Your task to perform on an android device: turn on priority inbox in the gmail app Image 0: 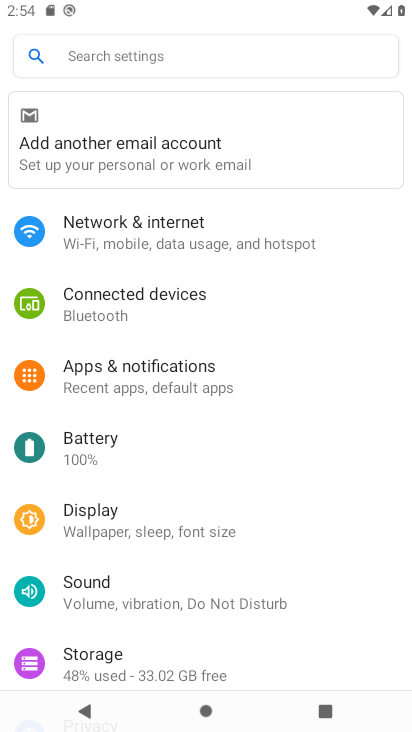
Step 0: press home button
Your task to perform on an android device: turn on priority inbox in the gmail app Image 1: 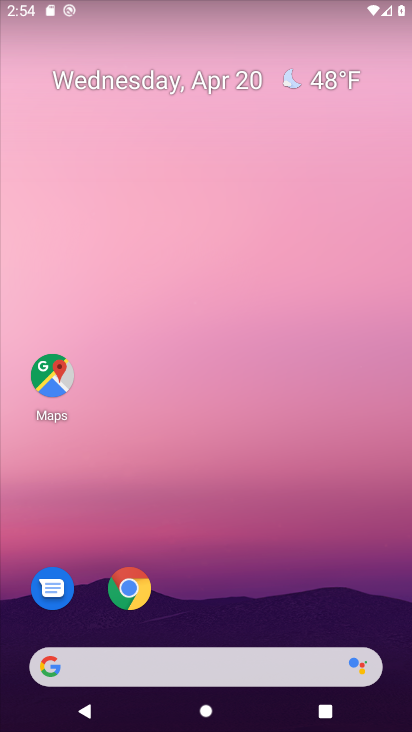
Step 1: drag from (345, 595) to (349, 87)
Your task to perform on an android device: turn on priority inbox in the gmail app Image 2: 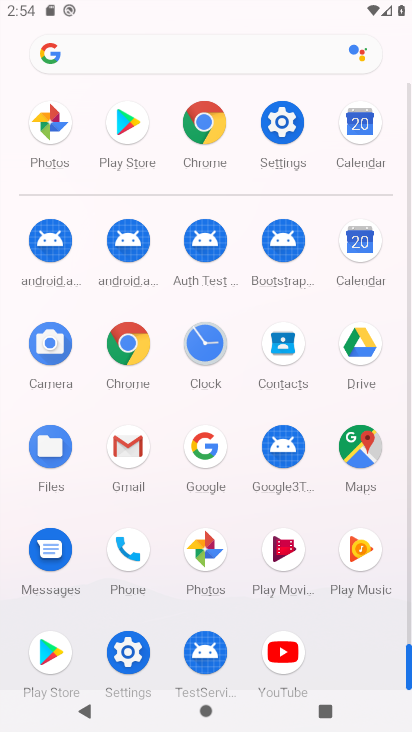
Step 2: click (130, 449)
Your task to perform on an android device: turn on priority inbox in the gmail app Image 3: 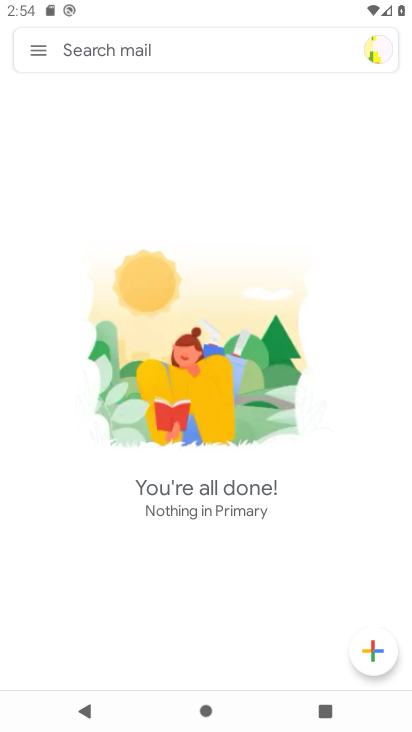
Step 3: click (41, 55)
Your task to perform on an android device: turn on priority inbox in the gmail app Image 4: 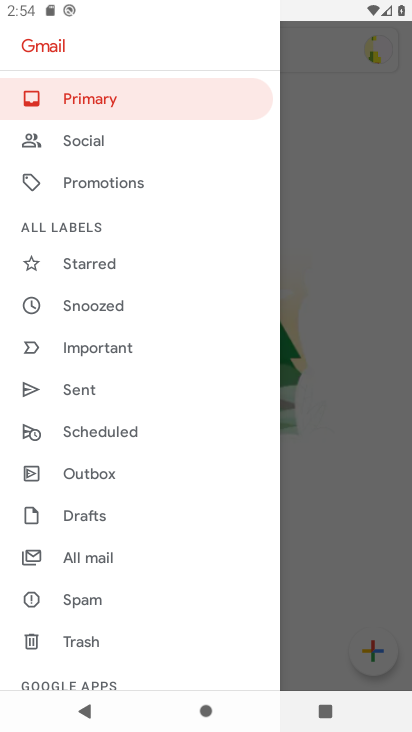
Step 4: drag from (213, 455) to (215, 358)
Your task to perform on an android device: turn on priority inbox in the gmail app Image 5: 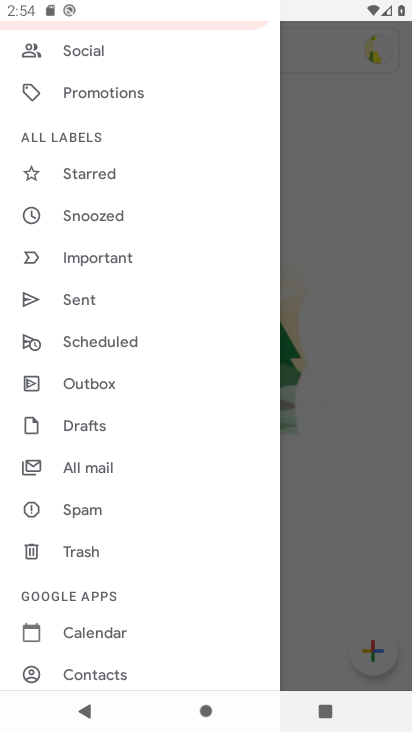
Step 5: drag from (220, 446) to (221, 390)
Your task to perform on an android device: turn on priority inbox in the gmail app Image 6: 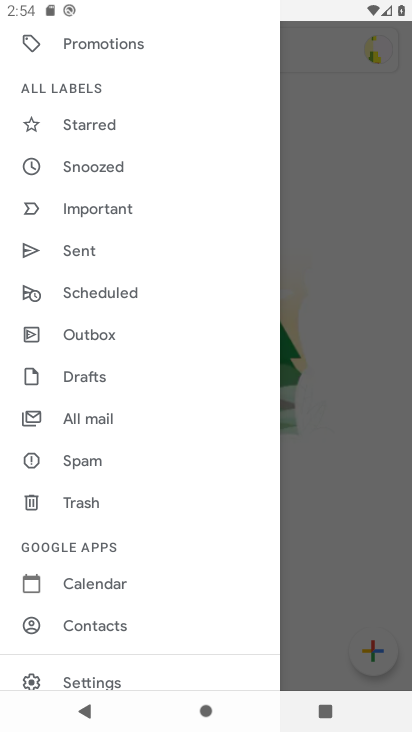
Step 6: drag from (202, 552) to (211, 384)
Your task to perform on an android device: turn on priority inbox in the gmail app Image 7: 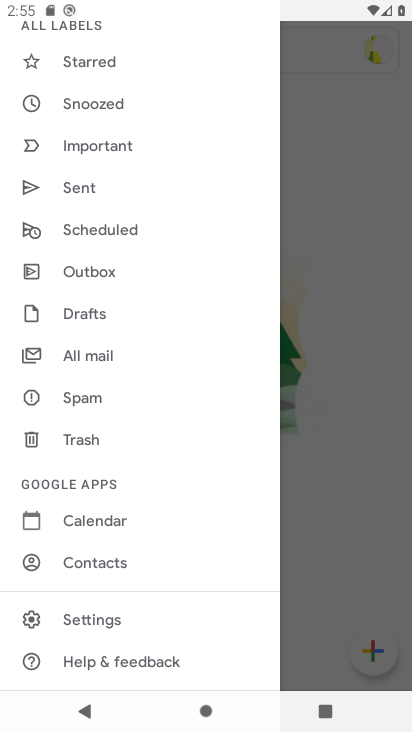
Step 7: click (122, 617)
Your task to perform on an android device: turn on priority inbox in the gmail app Image 8: 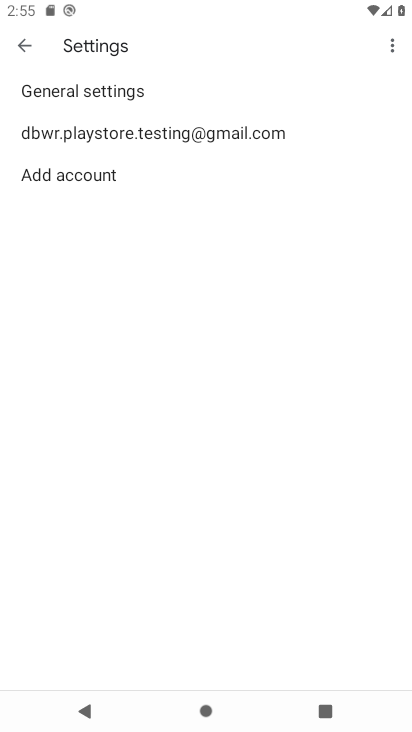
Step 8: click (248, 134)
Your task to perform on an android device: turn on priority inbox in the gmail app Image 9: 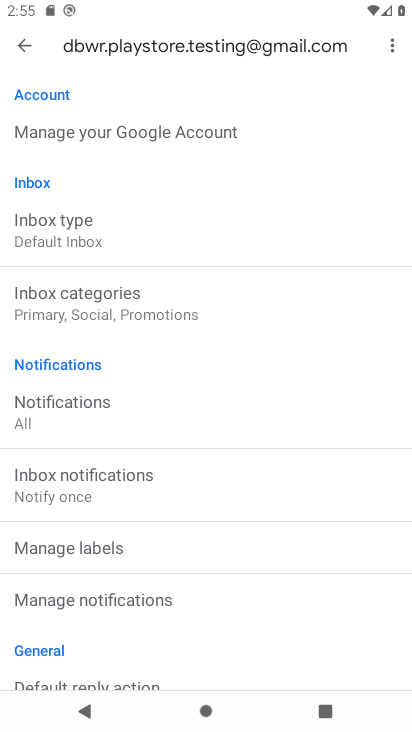
Step 9: drag from (267, 528) to (273, 397)
Your task to perform on an android device: turn on priority inbox in the gmail app Image 10: 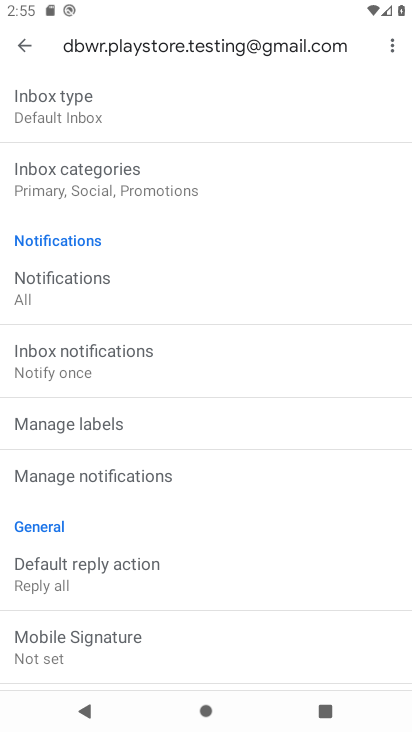
Step 10: drag from (291, 501) to (298, 402)
Your task to perform on an android device: turn on priority inbox in the gmail app Image 11: 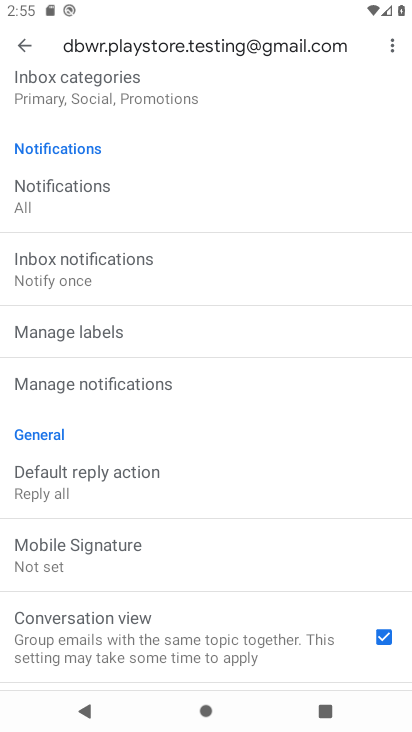
Step 11: drag from (302, 548) to (311, 359)
Your task to perform on an android device: turn on priority inbox in the gmail app Image 12: 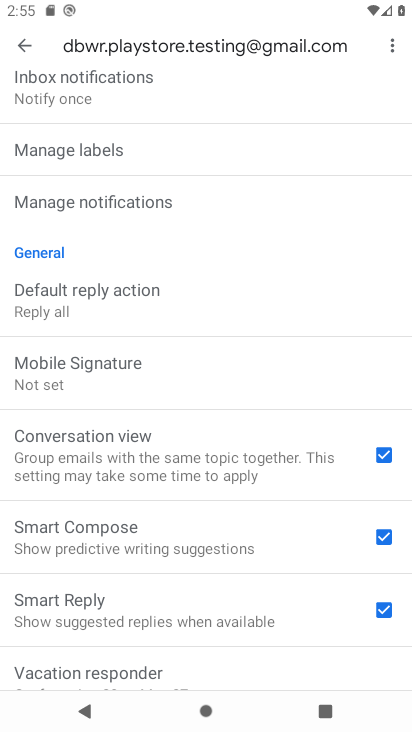
Step 12: drag from (309, 587) to (307, 391)
Your task to perform on an android device: turn on priority inbox in the gmail app Image 13: 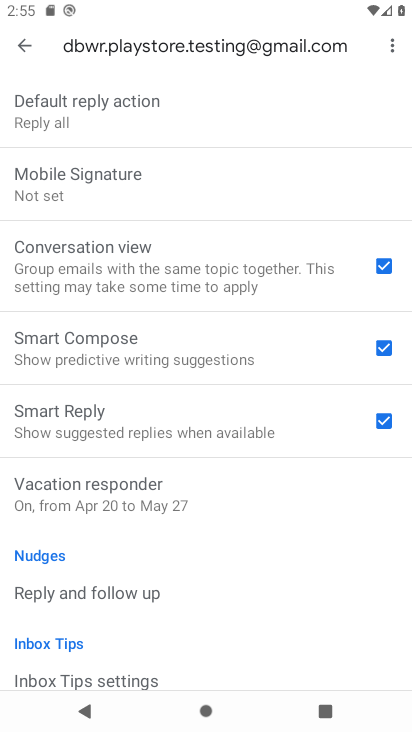
Step 13: drag from (311, 335) to (311, 495)
Your task to perform on an android device: turn on priority inbox in the gmail app Image 14: 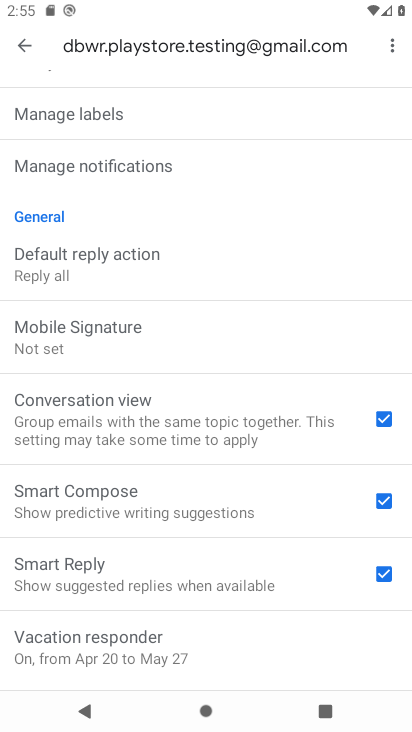
Step 14: drag from (302, 290) to (292, 467)
Your task to perform on an android device: turn on priority inbox in the gmail app Image 15: 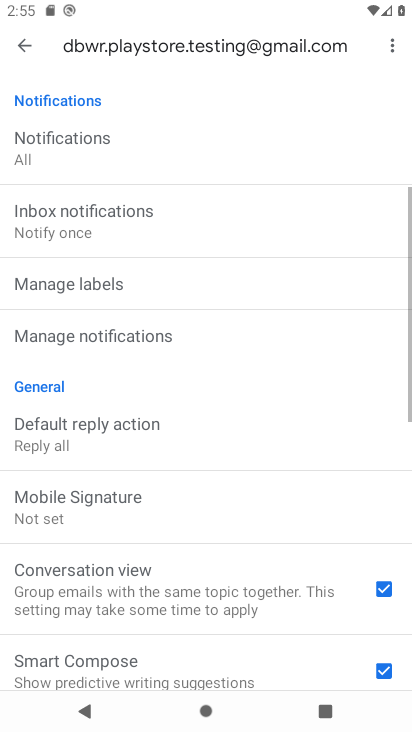
Step 15: drag from (280, 251) to (268, 408)
Your task to perform on an android device: turn on priority inbox in the gmail app Image 16: 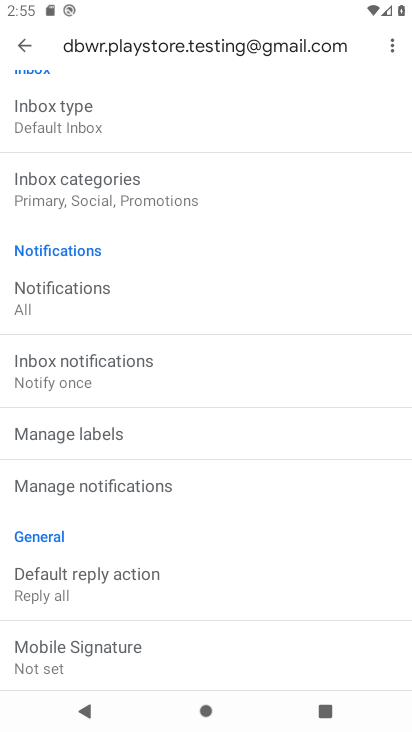
Step 16: drag from (276, 243) to (274, 424)
Your task to perform on an android device: turn on priority inbox in the gmail app Image 17: 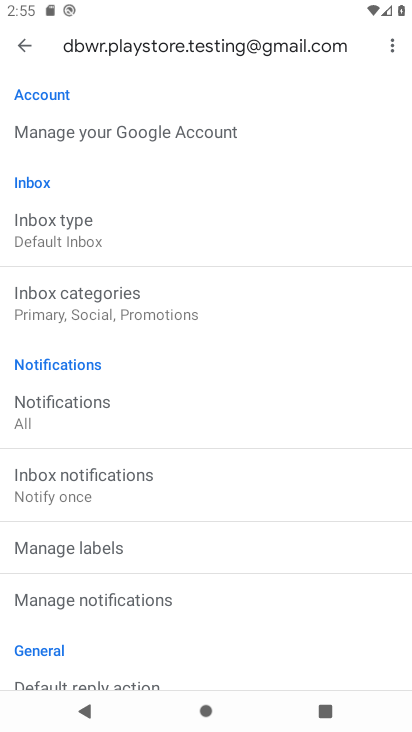
Step 17: click (51, 234)
Your task to perform on an android device: turn on priority inbox in the gmail app Image 18: 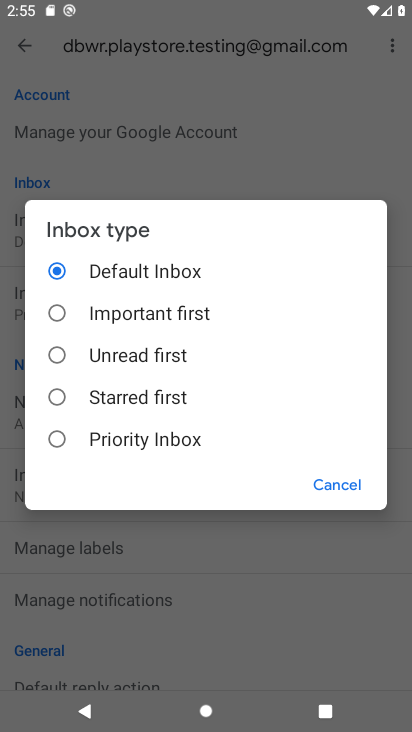
Step 18: click (204, 445)
Your task to perform on an android device: turn on priority inbox in the gmail app Image 19: 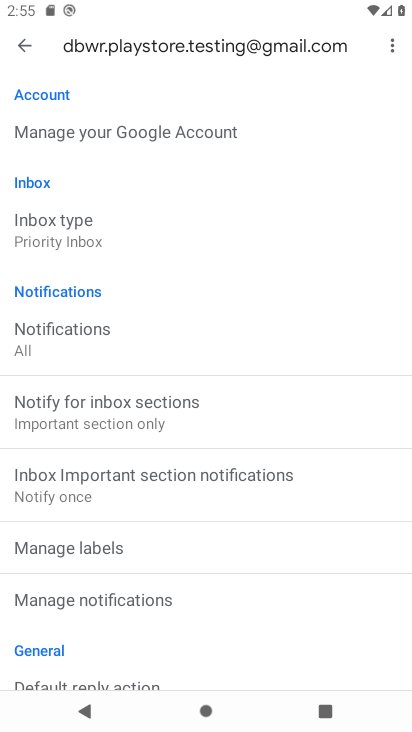
Step 19: task complete